Your task to perform on an android device: Check the news Image 0: 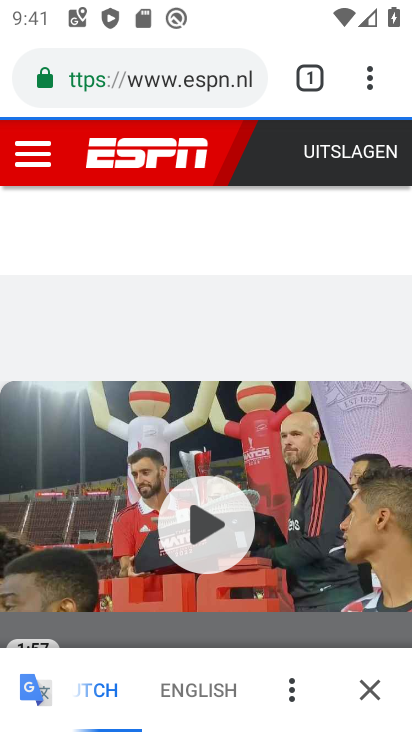
Step 0: press home button
Your task to perform on an android device: Check the news Image 1: 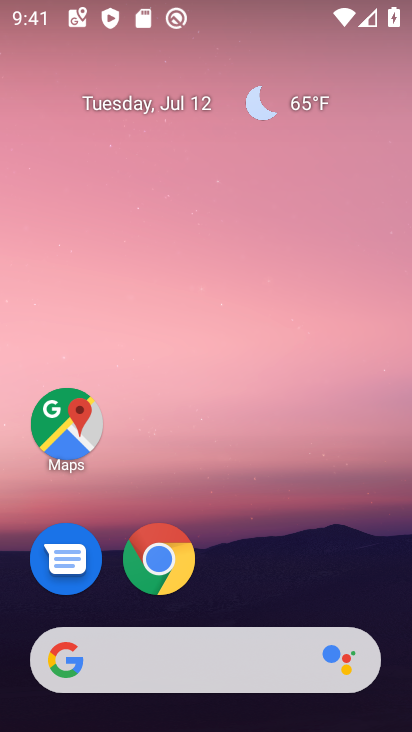
Step 1: task complete